Your task to perform on an android device: turn on translation in the chrome app Image 0: 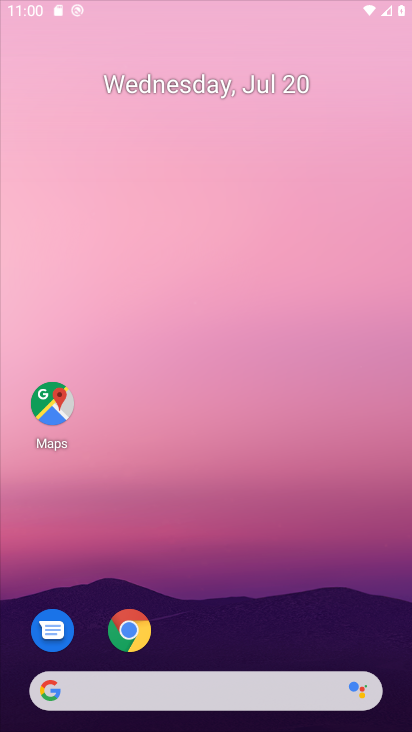
Step 0: drag from (296, 197) to (296, 131)
Your task to perform on an android device: turn on translation in the chrome app Image 1: 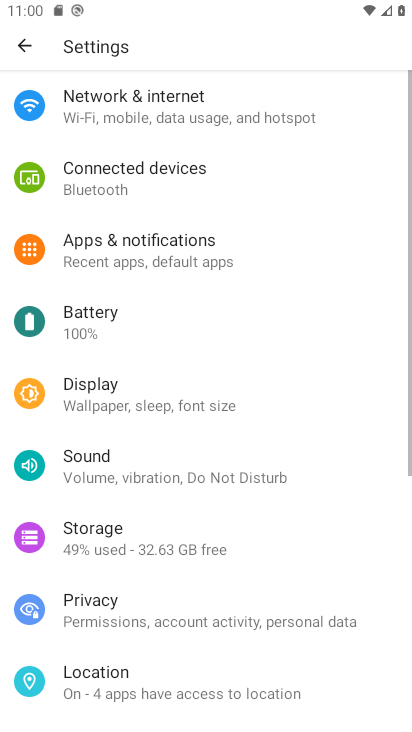
Step 1: click (23, 44)
Your task to perform on an android device: turn on translation in the chrome app Image 2: 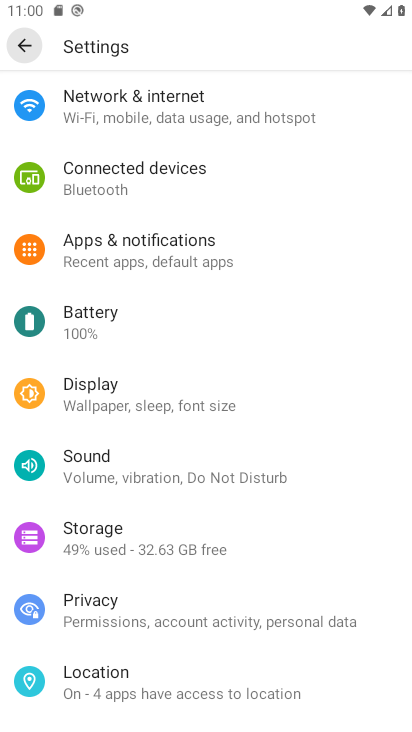
Step 2: click (21, 43)
Your task to perform on an android device: turn on translation in the chrome app Image 3: 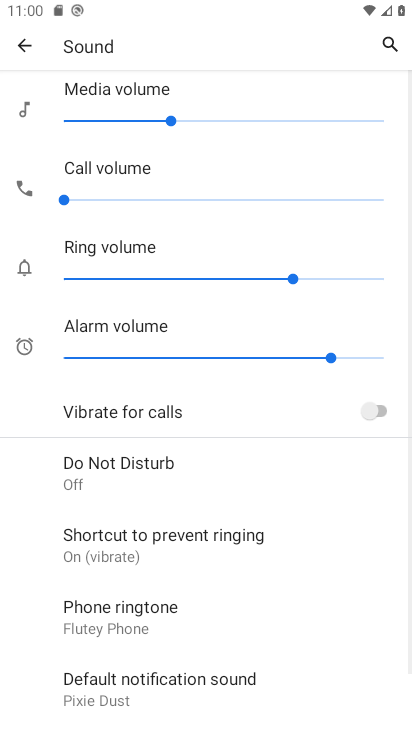
Step 3: click (11, 40)
Your task to perform on an android device: turn on translation in the chrome app Image 4: 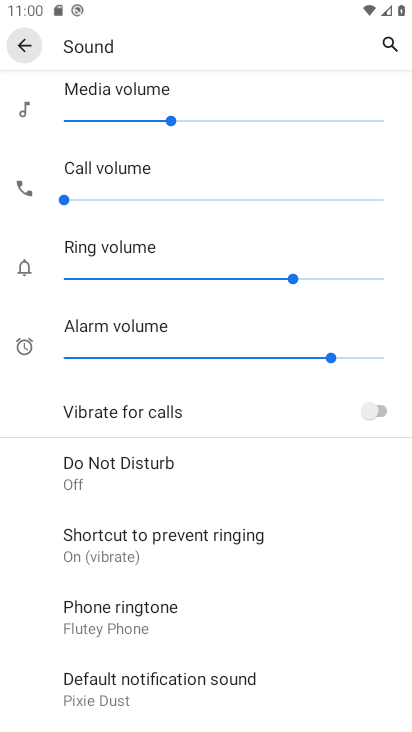
Step 4: click (17, 43)
Your task to perform on an android device: turn on translation in the chrome app Image 5: 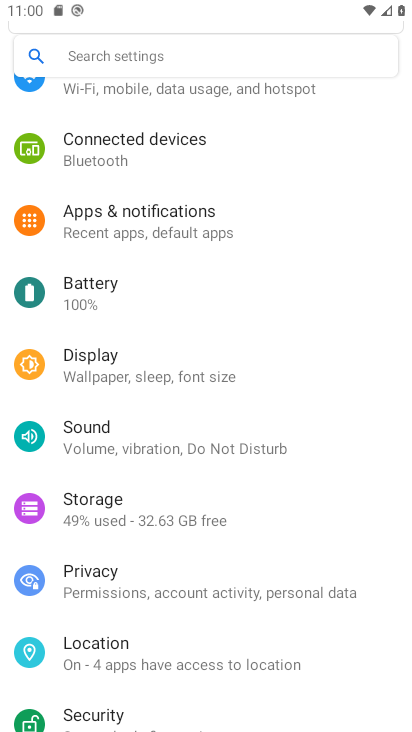
Step 5: press back button
Your task to perform on an android device: turn on translation in the chrome app Image 6: 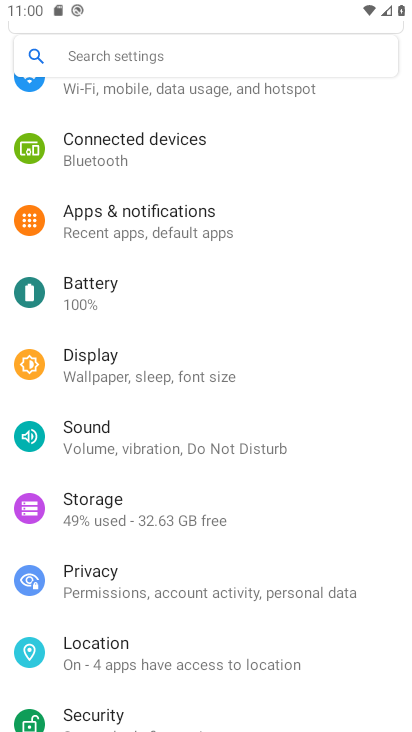
Step 6: press back button
Your task to perform on an android device: turn on translation in the chrome app Image 7: 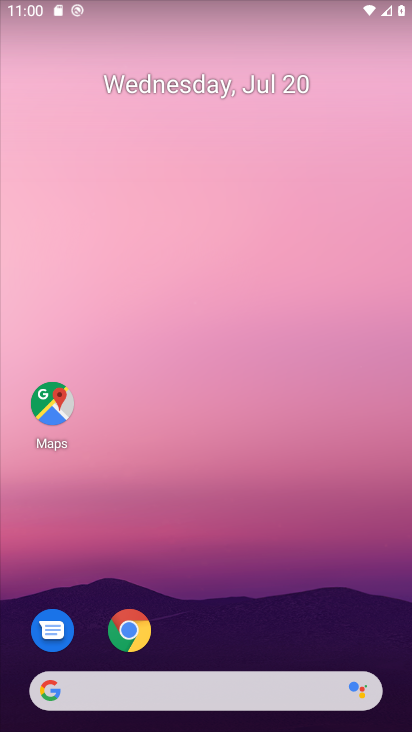
Step 7: drag from (235, 664) to (206, 280)
Your task to perform on an android device: turn on translation in the chrome app Image 8: 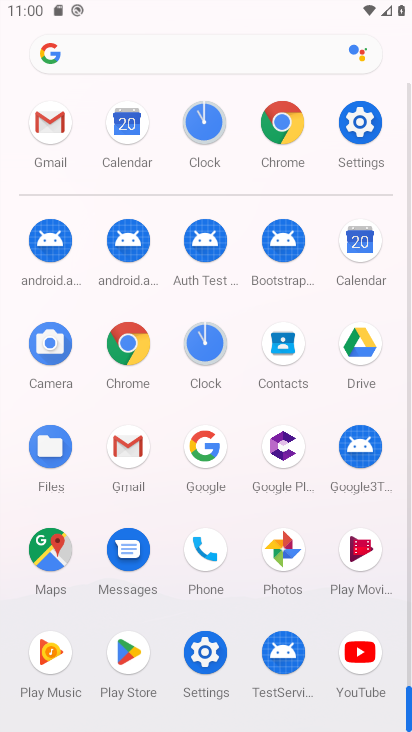
Step 8: drag from (223, 560) to (182, 152)
Your task to perform on an android device: turn on translation in the chrome app Image 9: 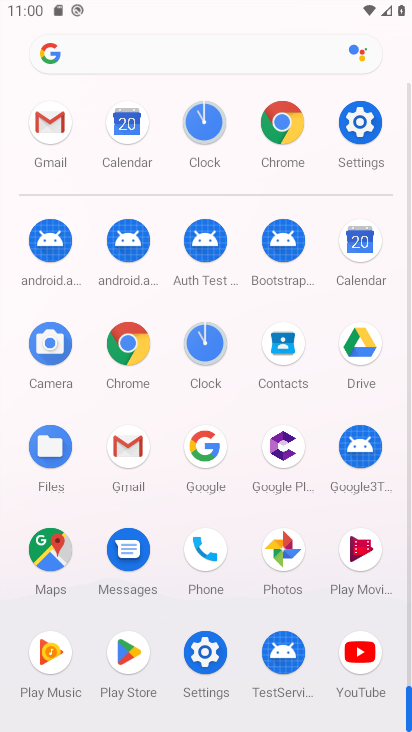
Step 9: click (280, 130)
Your task to perform on an android device: turn on translation in the chrome app Image 10: 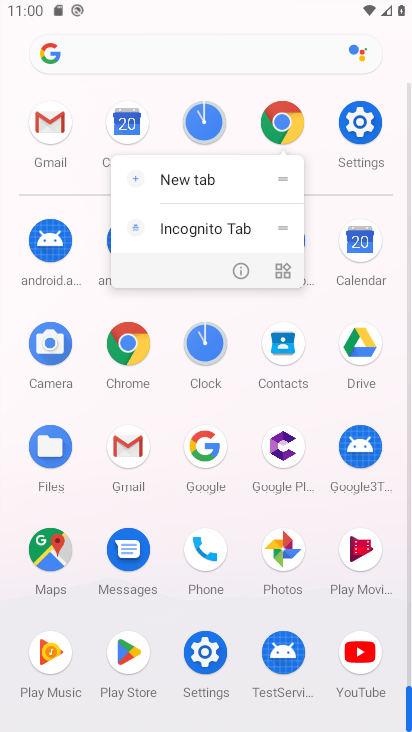
Step 10: click (280, 130)
Your task to perform on an android device: turn on translation in the chrome app Image 11: 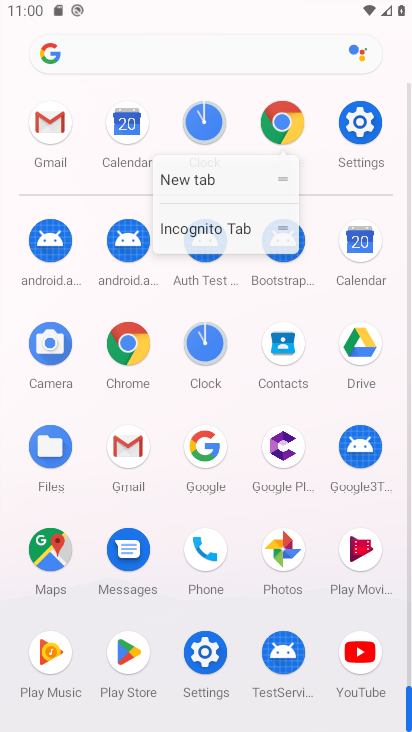
Step 11: click (280, 130)
Your task to perform on an android device: turn on translation in the chrome app Image 12: 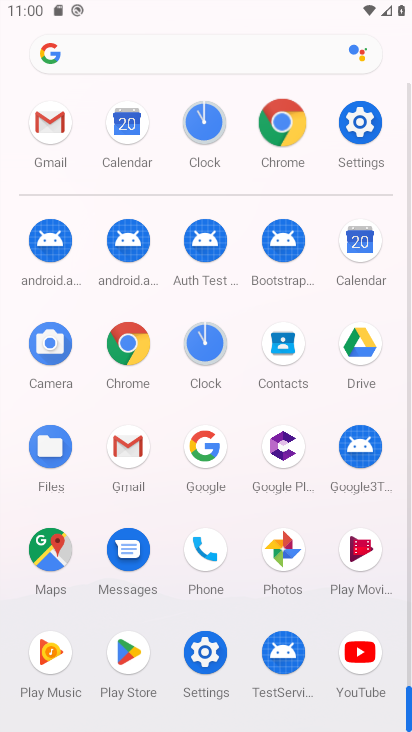
Step 12: click (283, 129)
Your task to perform on an android device: turn on translation in the chrome app Image 13: 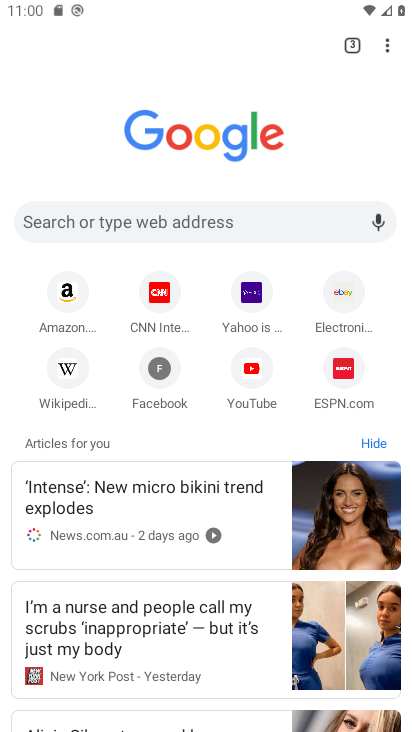
Step 13: drag from (382, 44) to (231, 381)
Your task to perform on an android device: turn on translation in the chrome app Image 14: 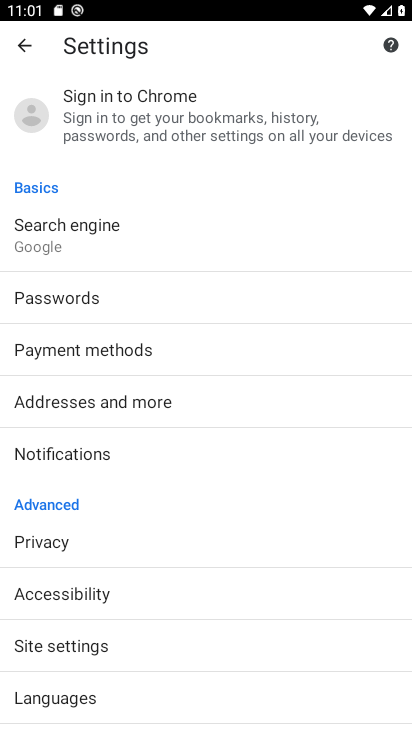
Step 14: click (71, 696)
Your task to perform on an android device: turn on translation in the chrome app Image 15: 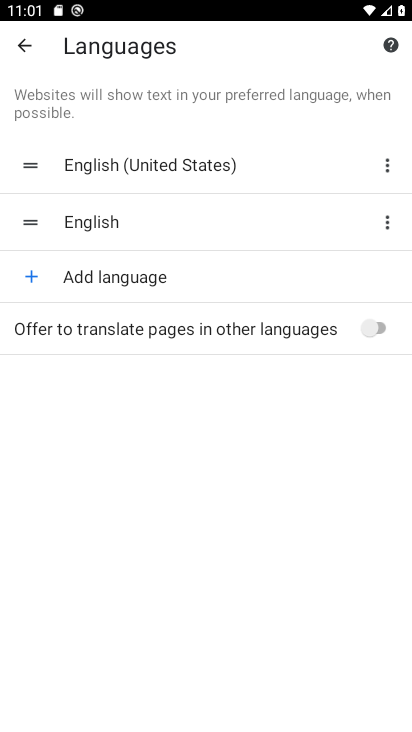
Step 15: click (366, 321)
Your task to perform on an android device: turn on translation in the chrome app Image 16: 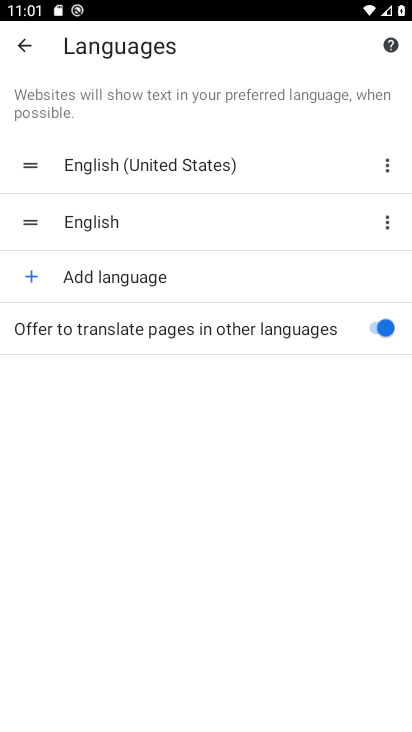
Step 16: task complete